Your task to perform on an android device: refresh tabs in the chrome app Image 0: 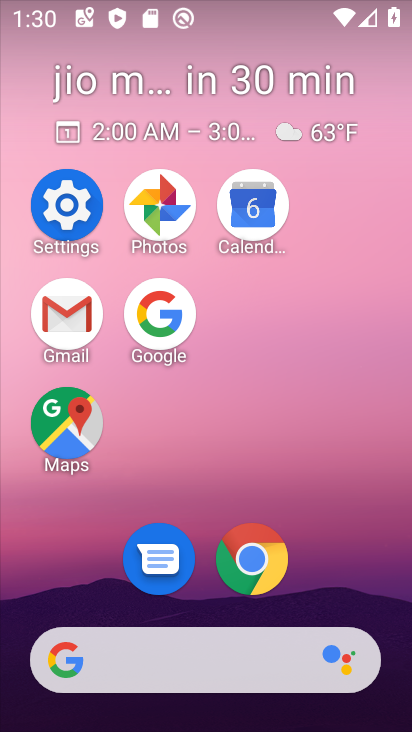
Step 0: click (263, 576)
Your task to perform on an android device: refresh tabs in the chrome app Image 1: 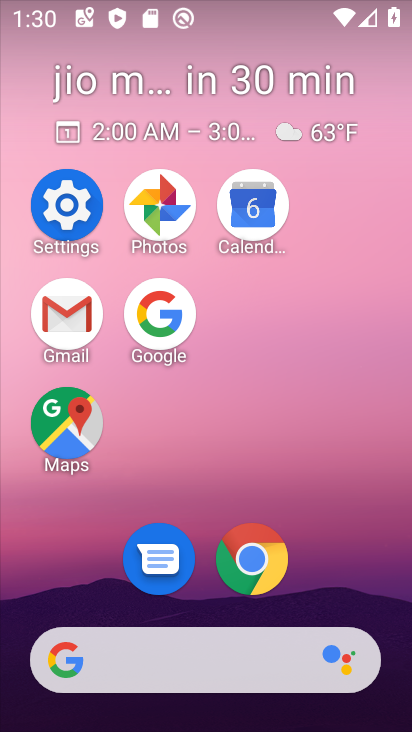
Step 1: click (281, 563)
Your task to perform on an android device: refresh tabs in the chrome app Image 2: 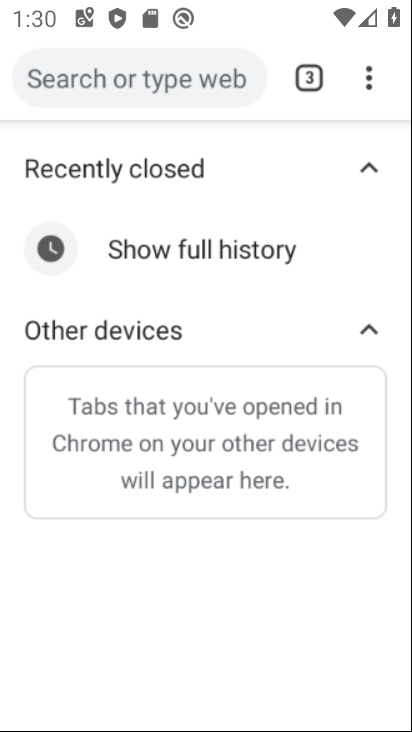
Step 2: click (389, 70)
Your task to perform on an android device: refresh tabs in the chrome app Image 3: 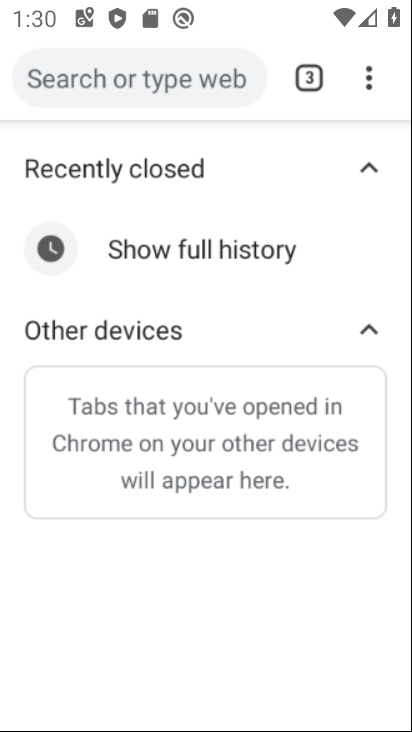
Step 3: click (369, 91)
Your task to perform on an android device: refresh tabs in the chrome app Image 4: 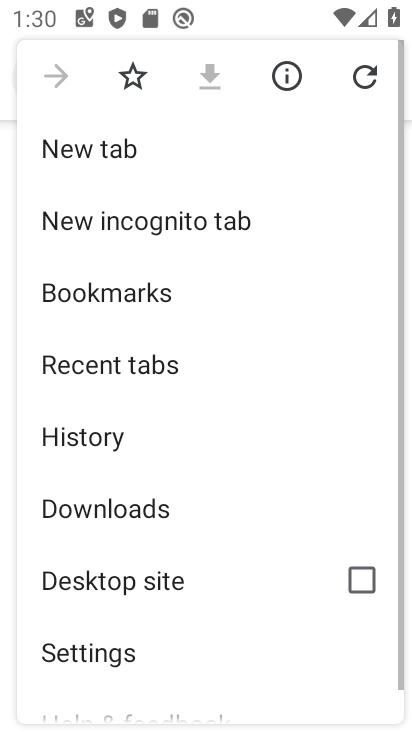
Step 4: click (366, 85)
Your task to perform on an android device: refresh tabs in the chrome app Image 5: 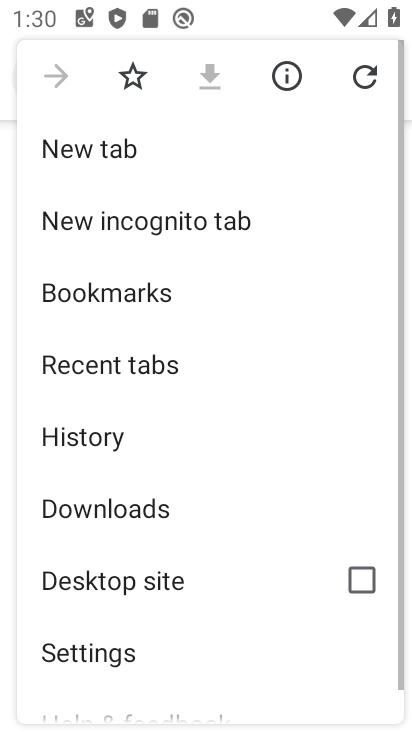
Step 5: click (370, 83)
Your task to perform on an android device: refresh tabs in the chrome app Image 6: 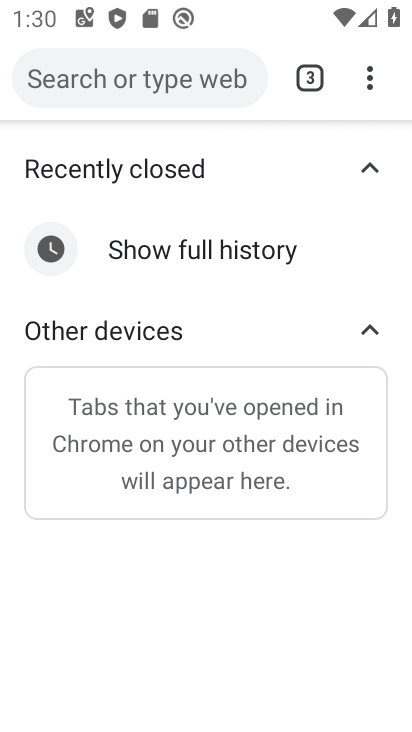
Step 6: task complete
Your task to perform on an android device: refresh tabs in the chrome app Image 7: 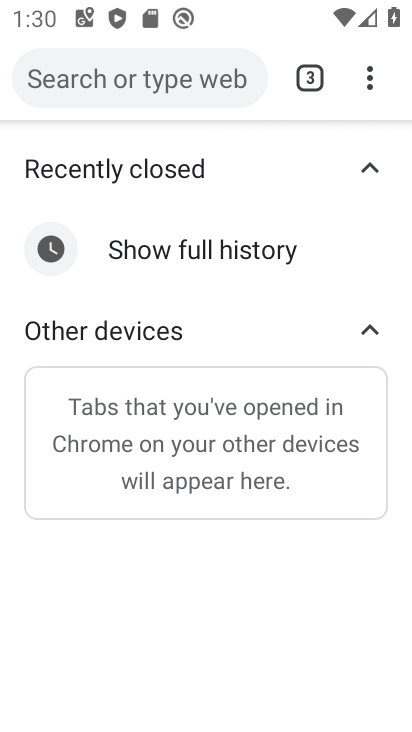
Step 7: task complete